Your task to perform on an android device: turn off translation in the chrome app Image 0: 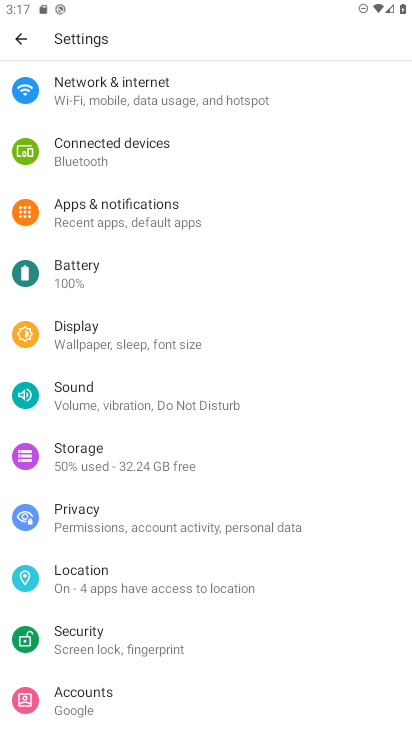
Step 0: drag from (279, 604) to (295, 189)
Your task to perform on an android device: turn off translation in the chrome app Image 1: 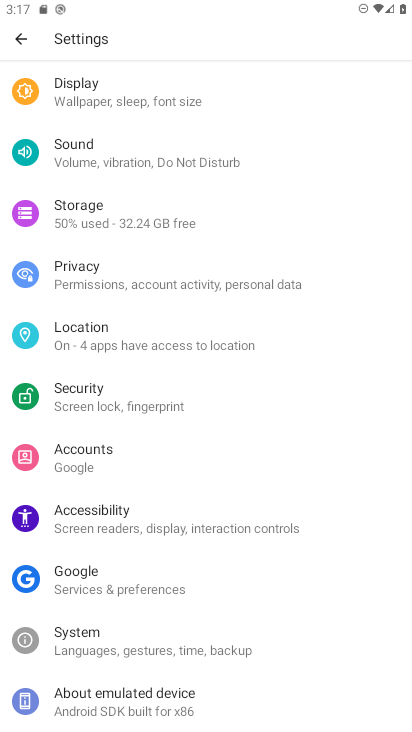
Step 1: drag from (280, 195) to (213, 594)
Your task to perform on an android device: turn off translation in the chrome app Image 2: 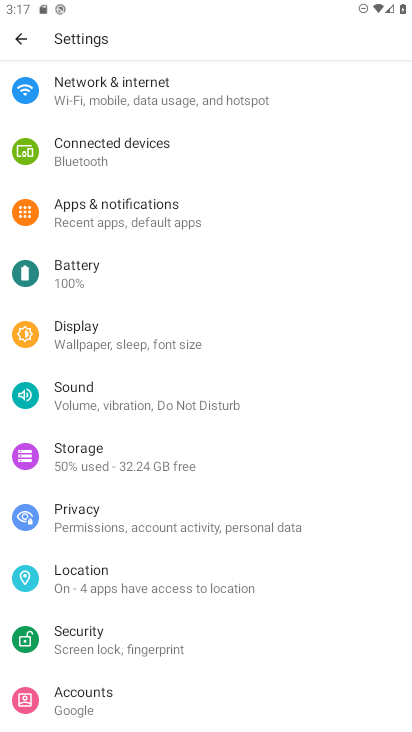
Step 2: drag from (279, 286) to (191, 521)
Your task to perform on an android device: turn off translation in the chrome app Image 3: 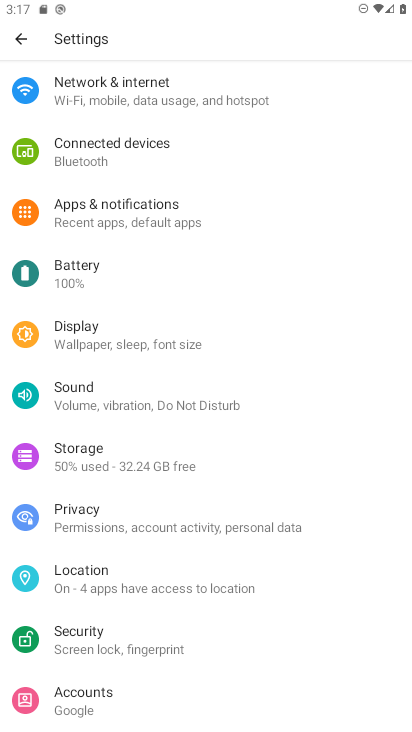
Step 3: drag from (186, 605) to (193, 232)
Your task to perform on an android device: turn off translation in the chrome app Image 4: 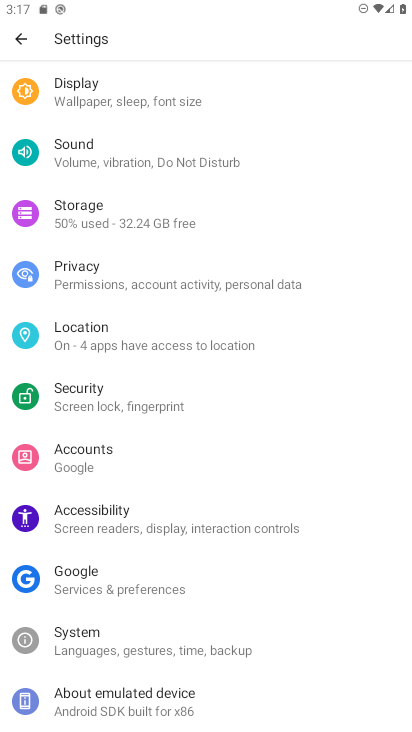
Step 4: drag from (170, 241) to (149, 553)
Your task to perform on an android device: turn off translation in the chrome app Image 5: 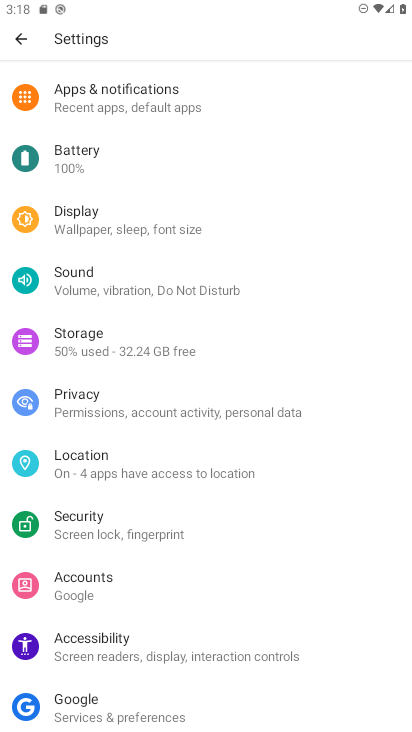
Step 5: drag from (179, 411) to (178, 157)
Your task to perform on an android device: turn off translation in the chrome app Image 6: 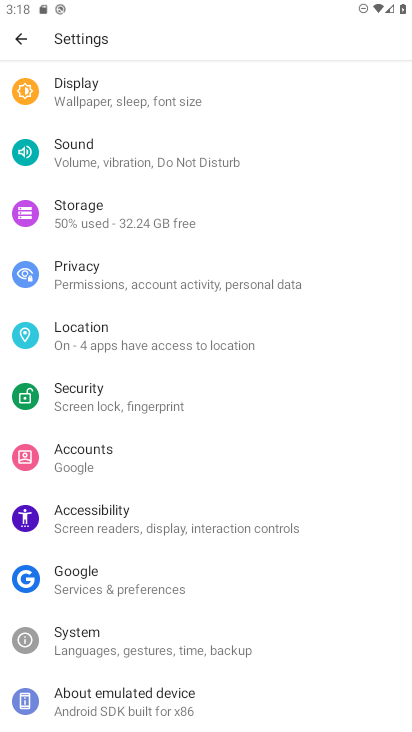
Step 6: drag from (178, 157) to (162, 380)
Your task to perform on an android device: turn off translation in the chrome app Image 7: 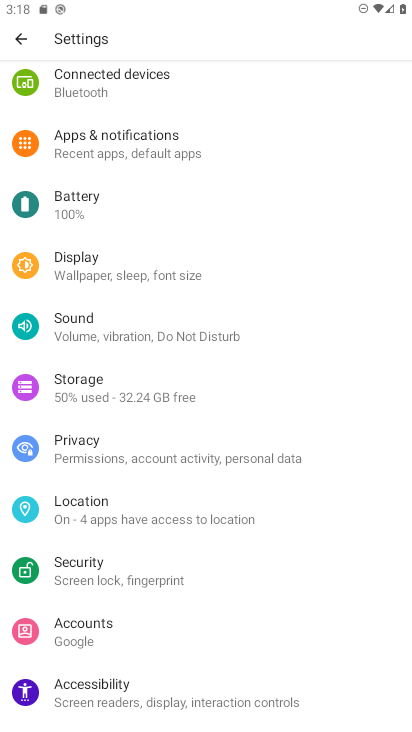
Step 7: drag from (194, 267) to (174, 454)
Your task to perform on an android device: turn off translation in the chrome app Image 8: 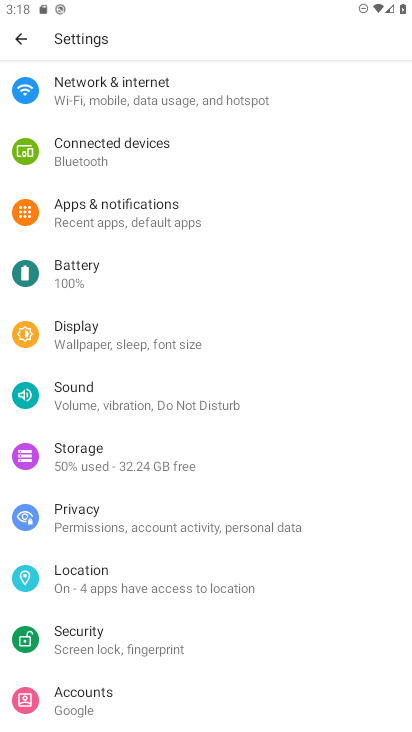
Step 8: drag from (176, 375) to (140, 559)
Your task to perform on an android device: turn off translation in the chrome app Image 9: 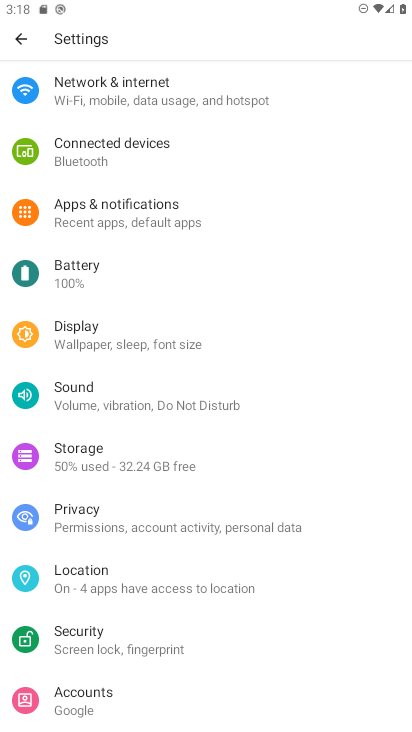
Step 9: drag from (130, 607) to (140, 354)
Your task to perform on an android device: turn off translation in the chrome app Image 10: 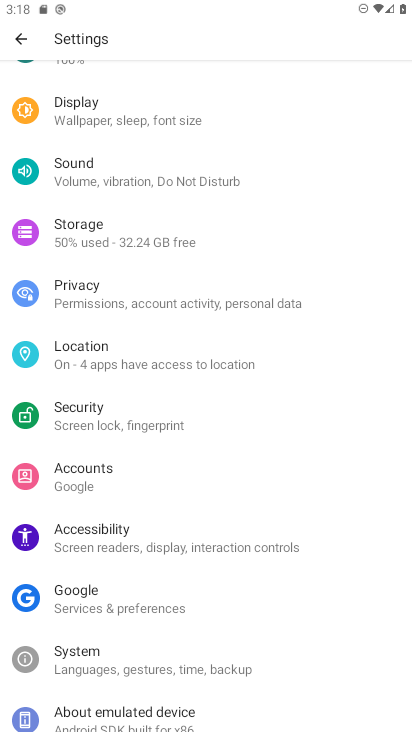
Step 10: drag from (116, 567) to (217, 121)
Your task to perform on an android device: turn off translation in the chrome app Image 11: 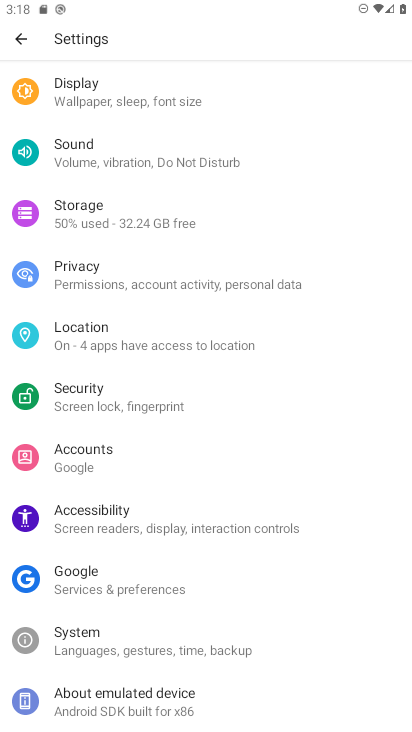
Step 11: drag from (192, 268) to (181, 501)
Your task to perform on an android device: turn off translation in the chrome app Image 12: 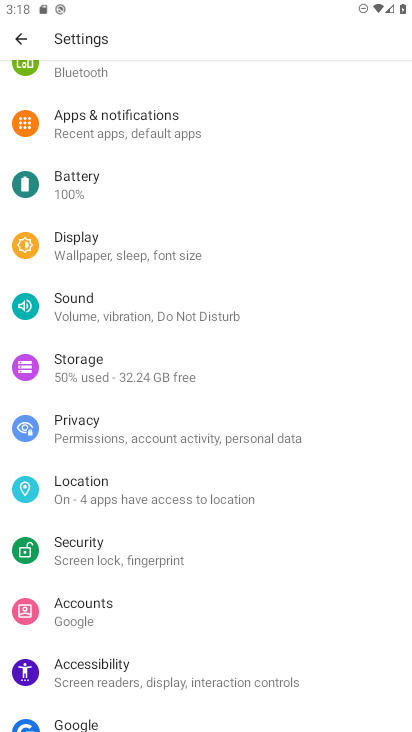
Step 12: press home button
Your task to perform on an android device: turn off translation in the chrome app Image 13: 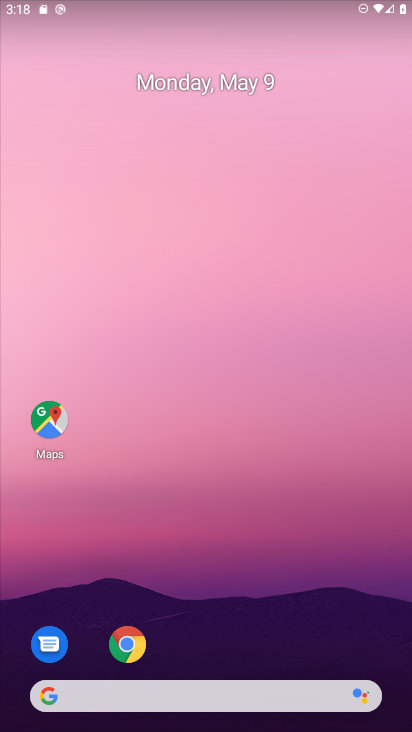
Step 13: click (122, 657)
Your task to perform on an android device: turn off translation in the chrome app Image 14: 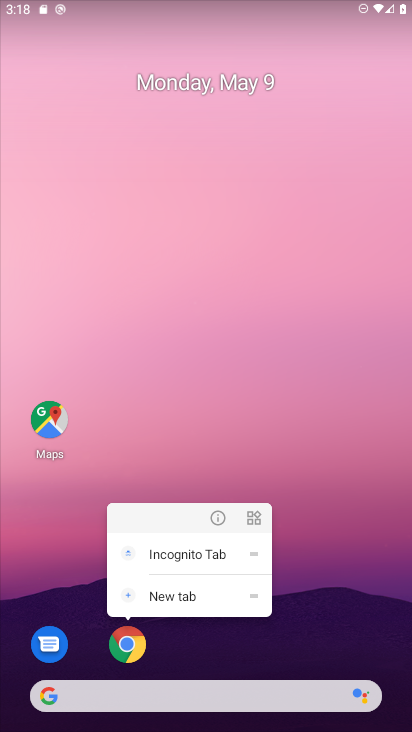
Step 14: click (126, 654)
Your task to perform on an android device: turn off translation in the chrome app Image 15: 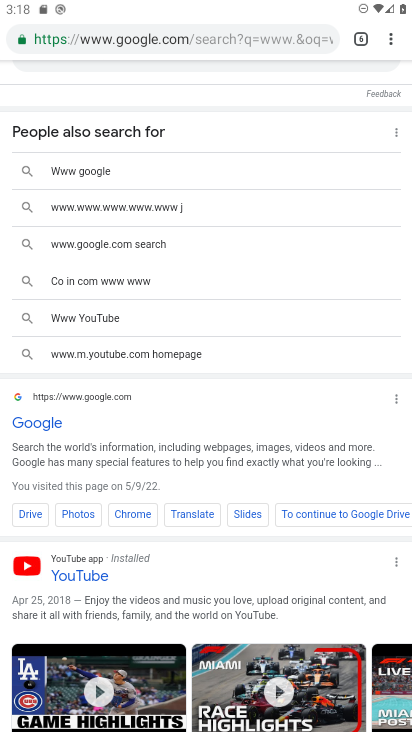
Step 15: drag from (227, 421) to (211, 538)
Your task to perform on an android device: turn off translation in the chrome app Image 16: 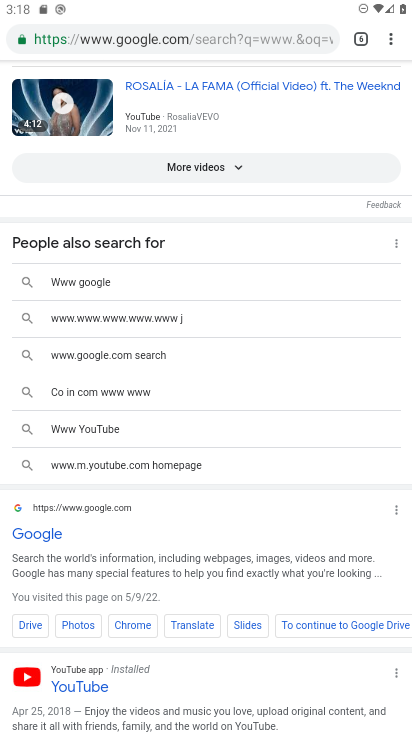
Step 16: click (388, 43)
Your task to perform on an android device: turn off translation in the chrome app Image 17: 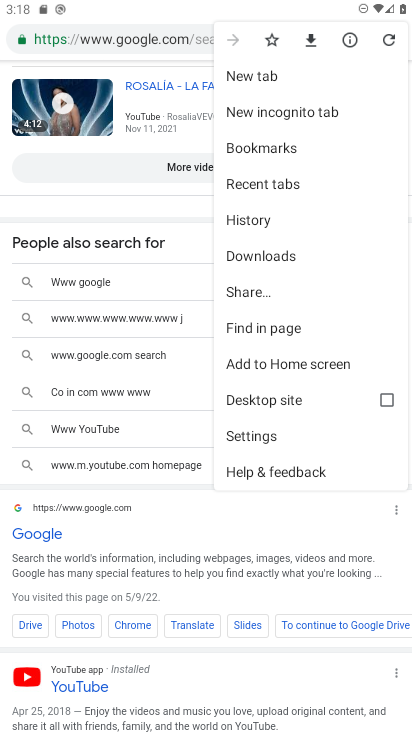
Step 17: click (248, 433)
Your task to perform on an android device: turn off translation in the chrome app Image 18: 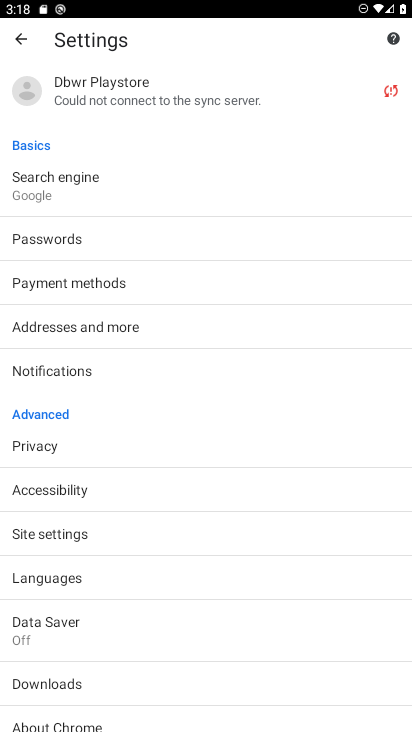
Step 18: click (57, 578)
Your task to perform on an android device: turn off translation in the chrome app Image 19: 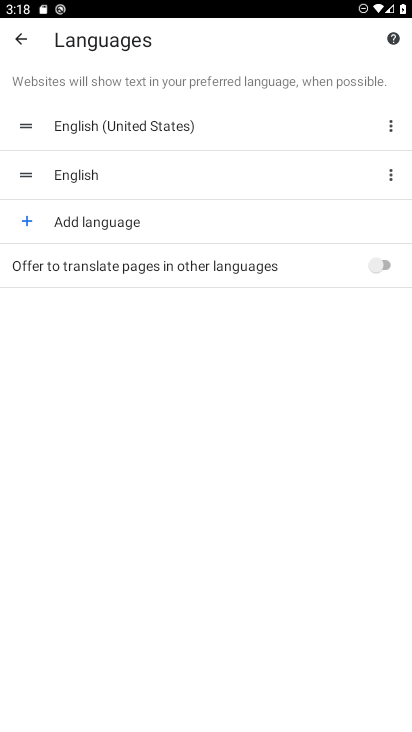
Step 19: task complete